Your task to perform on an android device: turn off wifi Image 0: 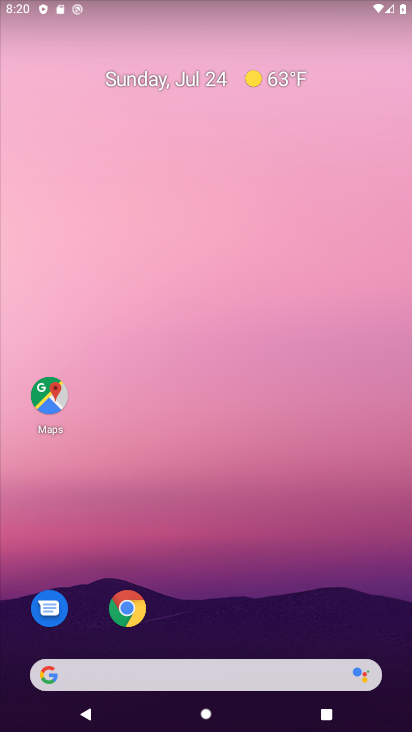
Step 0: press home button
Your task to perform on an android device: turn off wifi Image 1: 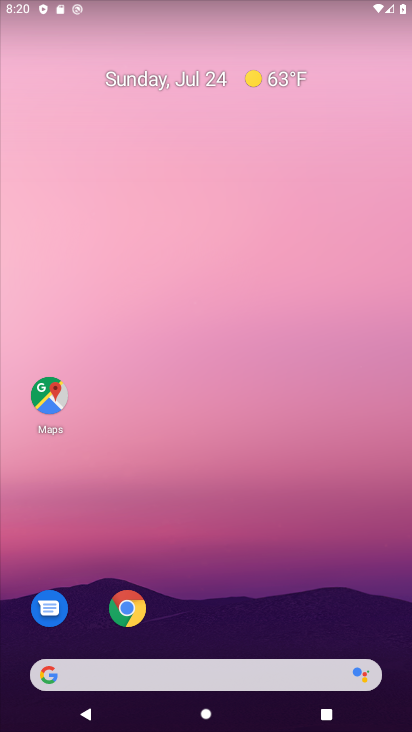
Step 1: press home button
Your task to perform on an android device: turn off wifi Image 2: 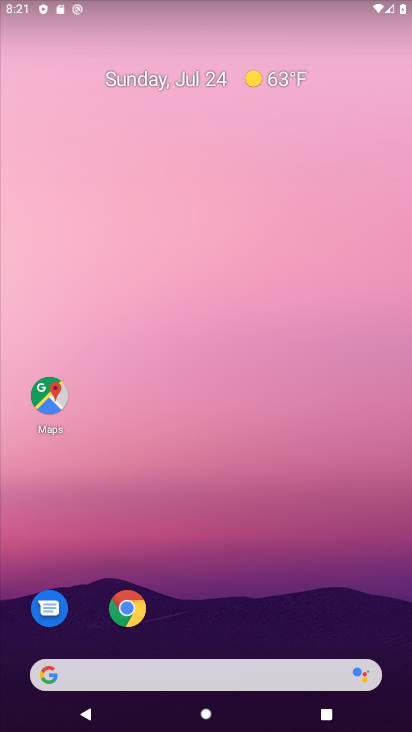
Step 2: drag from (117, 9) to (137, 359)
Your task to perform on an android device: turn off wifi Image 3: 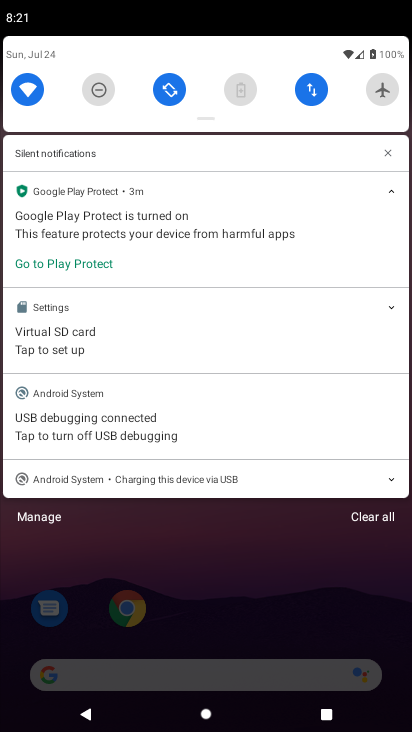
Step 3: click (22, 82)
Your task to perform on an android device: turn off wifi Image 4: 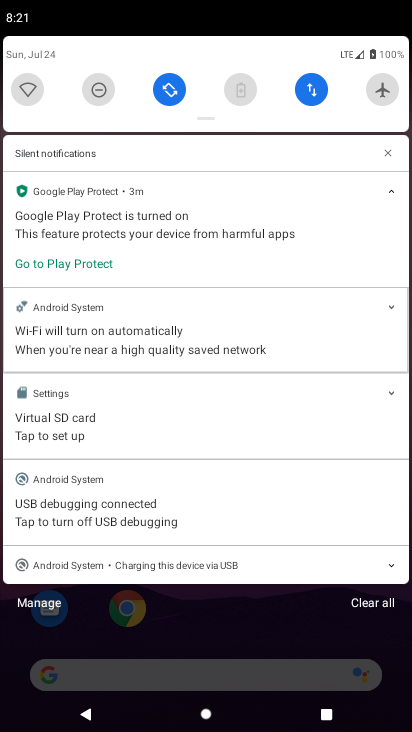
Step 4: task complete